Your task to perform on an android device: Open notification settings Image 0: 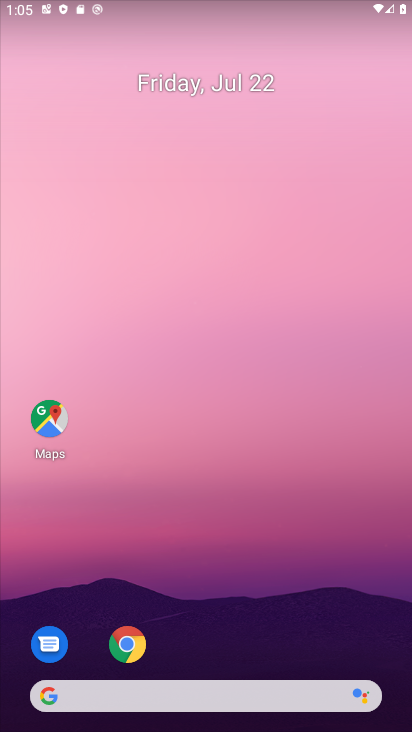
Step 0: press home button
Your task to perform on an android device: Open notification settings Image 1: 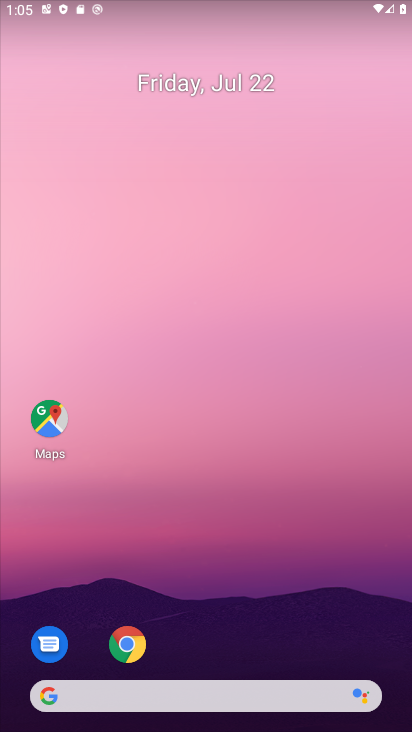
Step 1: press home button
Your task to perform on an android device: Open notification settings Image 2: 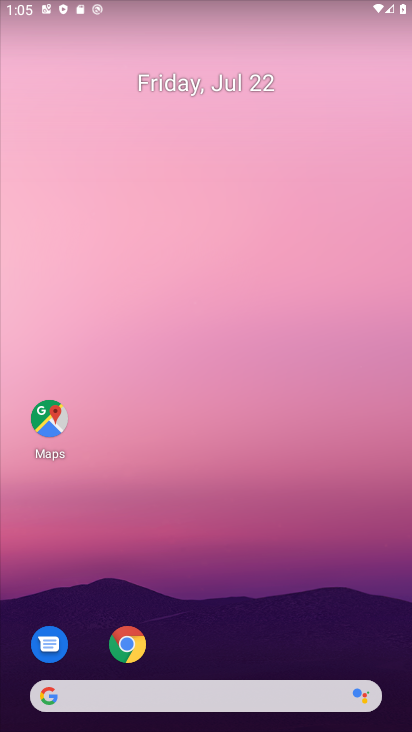
Step 2: press home button
Your task to perform on an android device: Open notification settings Image 3: 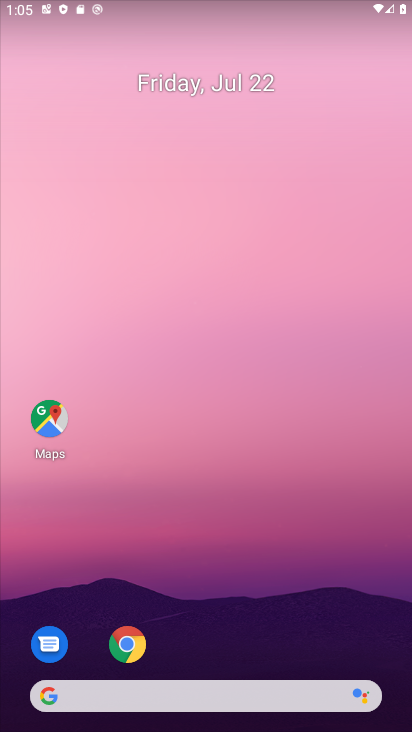
Step 3: drag from (241, 633) to (236, 65)
Your task to perform on an android device: Open notification settings Image 4: 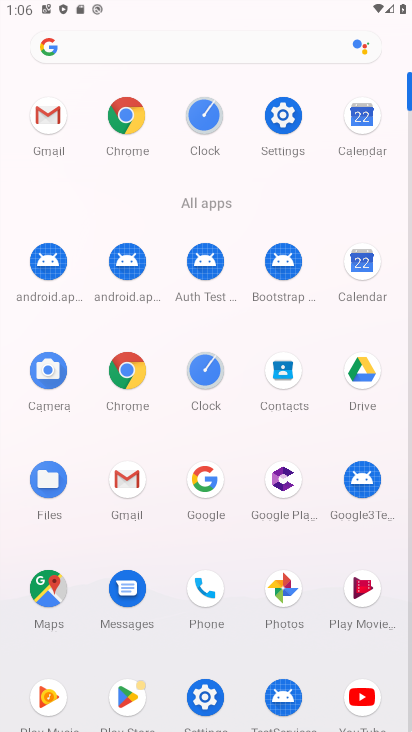
Step 4: click (279, 106)
Your task to perform on an android device: Open notification settings Image 5: 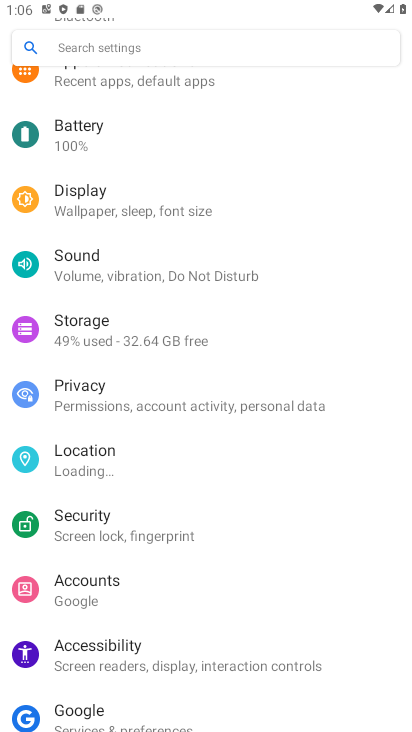
Step 5: click (125, 81)
Your task to perform on an android device: Open notification settings Image 6: 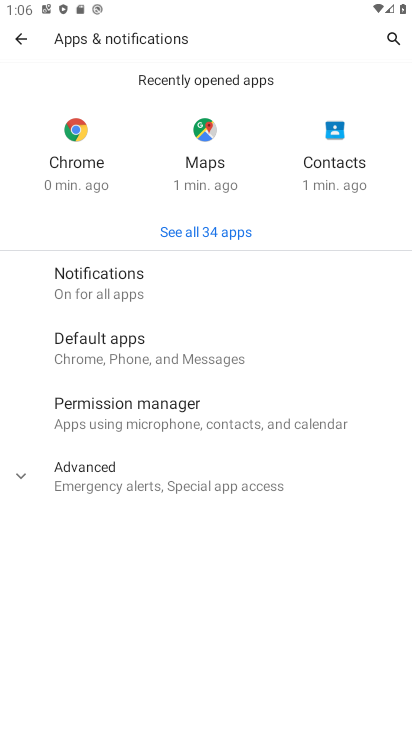
Step 6: click (96, 282)
Your task to perform on an android device: Open notification settings Image 7: 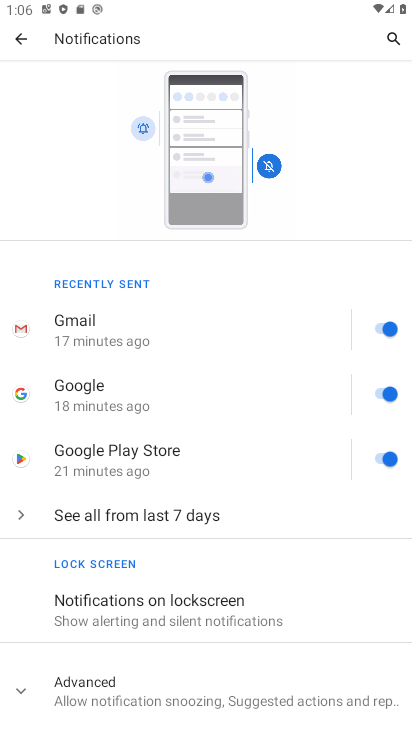
Step 7: click (17, 689)
Your task to perform on an android device: Open notification settings Image 8: 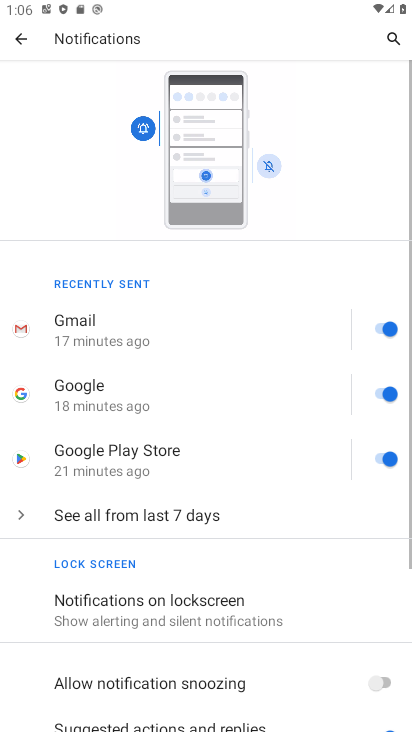
Step 8: task complete